Your task to perform on an android device: turn on priority inbox in the gmail app Image 0: 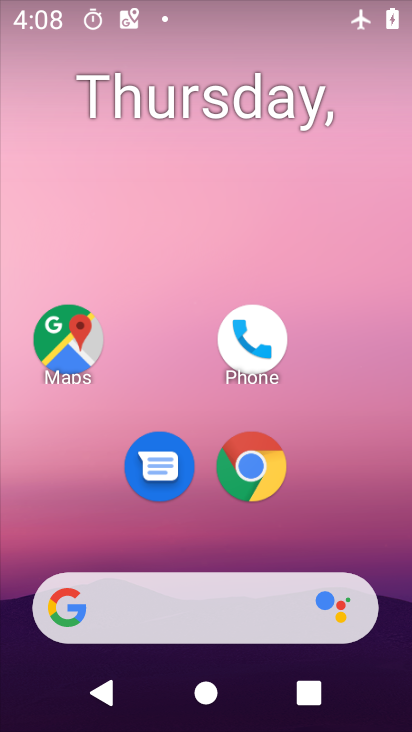
Step 0: drag from (215, 542) to (247, 160)
Your task to perform on an android device: turn on priority inbox in the gmail app Image 1: 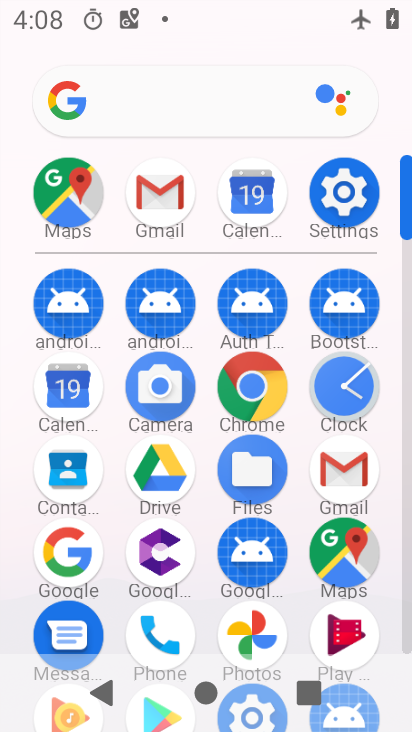
Step 1: click (364, 462)
Your task to perform on an android device: turn on priority inbox in the gmail app Image 2: 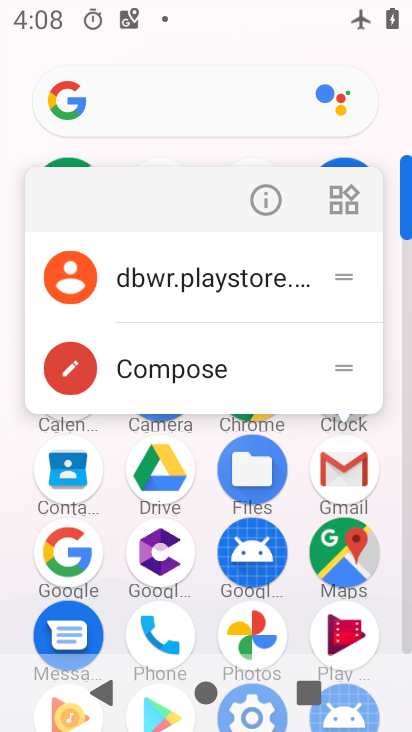
Step 2: click (242, 284)
Your task to perform on an android device: turn on priority inbox in the gmail app Image 3: 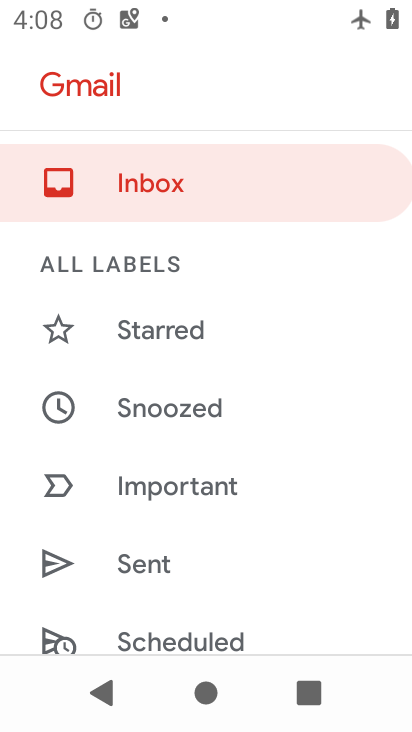
Step 3: drag from (197, 528) to (253, 186)
Your task to perform on an android device: turn on priority inbox in the gmail app Image 4: 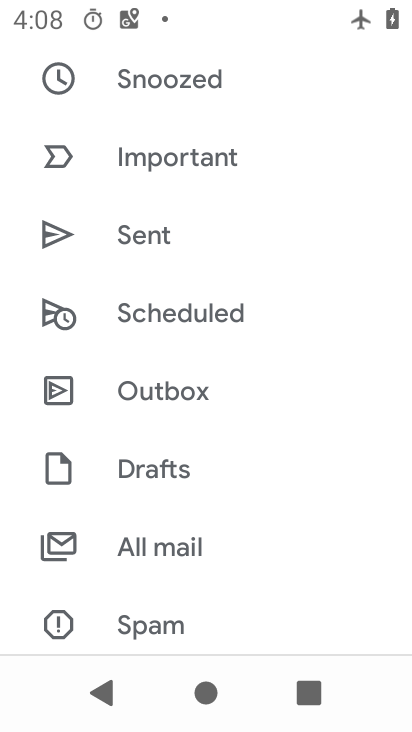
Step 4: drag from (234, 604) to (290, 208)
Your task to perform on an android device: turn on priority inbox in the gmail app Image 5: 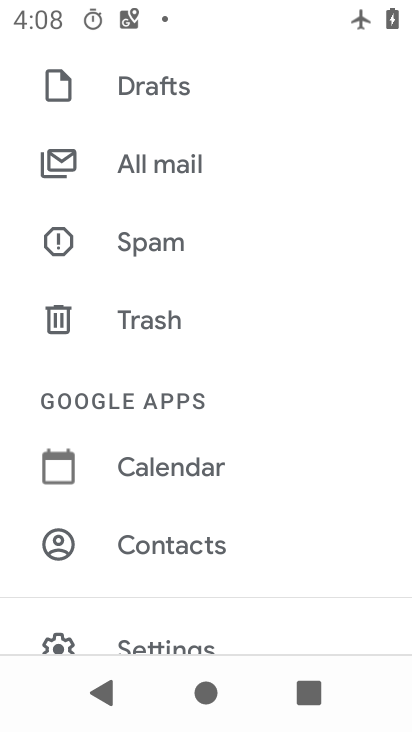
Step 5: drag from (247, 437) to (340, 14)
Your task to perform on an android device: turn on priority inbox in the gmail app Image 6: 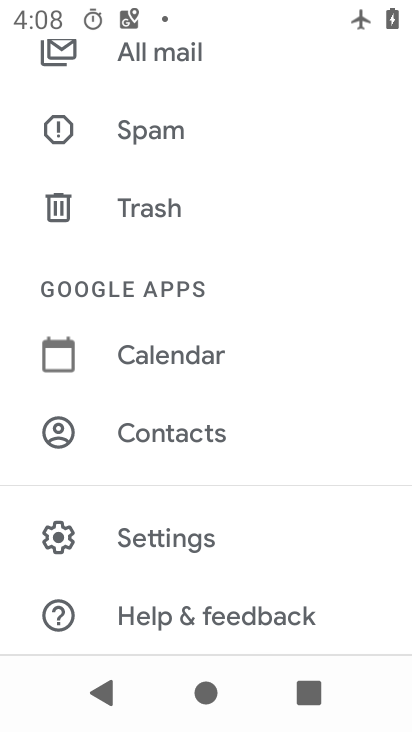
Step 6: click (177, 509)
Your task to perform on an android device: turn on priority inbox in the gmail app Image 7: 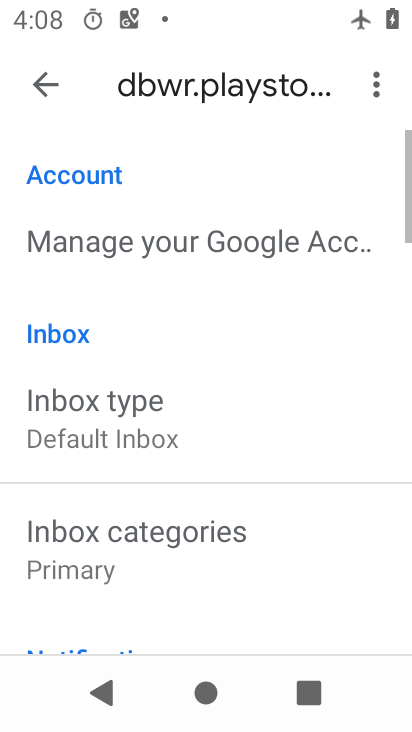
Step 7: drag from (180, 486) to (254, 133)
Your task to perform on an android device: turn on priority inbox in the gmail app Image 8: 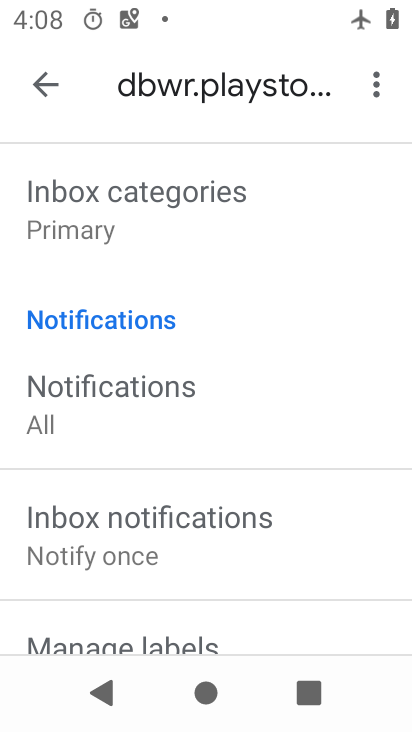
Step 8: drag from (144, 351) to (185, 554)
Your task to perform on an android device: turn on priority inbox in the gmail app Image 9: 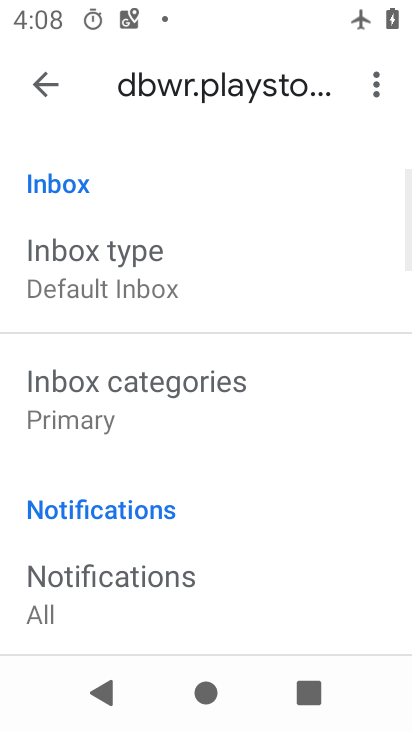
Step 9: click (170, 270)
Your task to perform on an android device: turn on priority inbox in the gmail app Image 10: 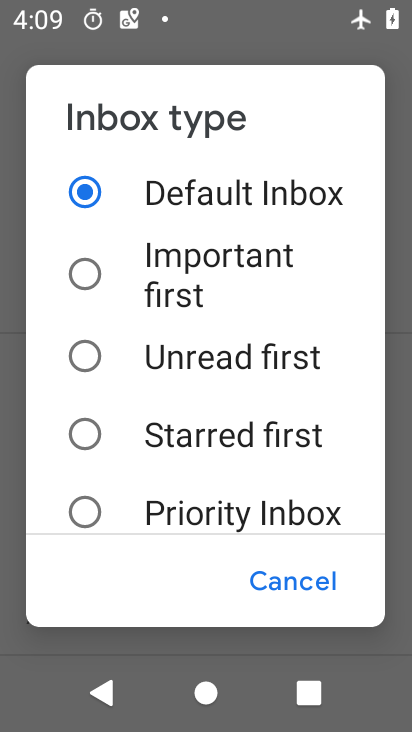
Step 10: drag from (209, 474) to (251, 128)
Your task to perform on an android device: turn on priority inbox in the gmail app Image 11: 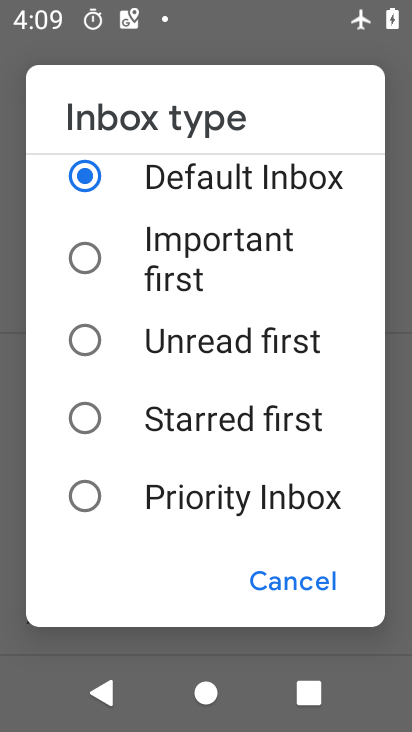
Step 11: click (201, 498)
Your task to perform on an android device: turn on priority inbox in the gmail app Image 12: 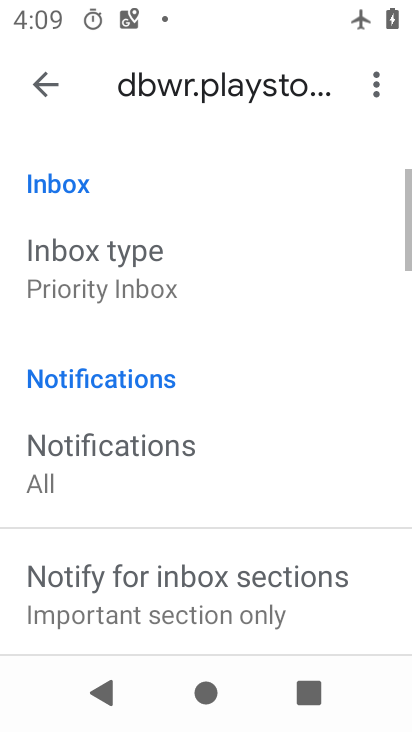
Step 12: task complete